Your task to perform on an android device: manage bookmarks in the chrome app Image 0: 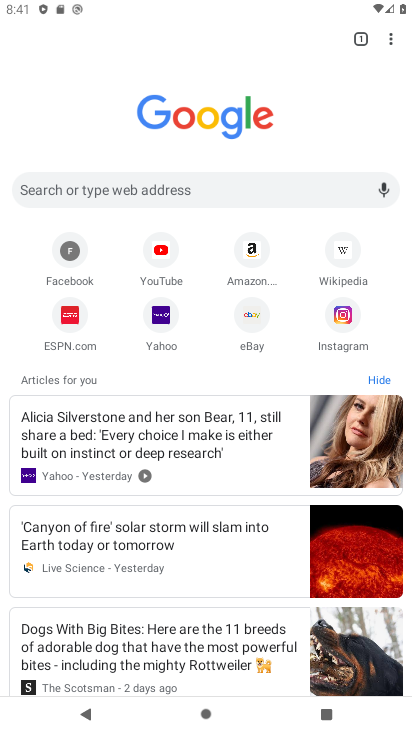
Step 0: click (390, 32)
Your task to perform on an android device: manage bookmarks in the chrome app Image 1: 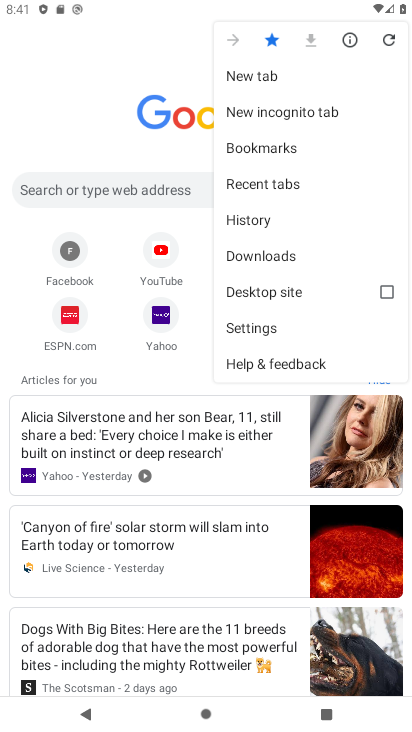
Step 1: click (289, 143)
Your task to perform on an android device: manage bookmarks in the chrome app Image 2: 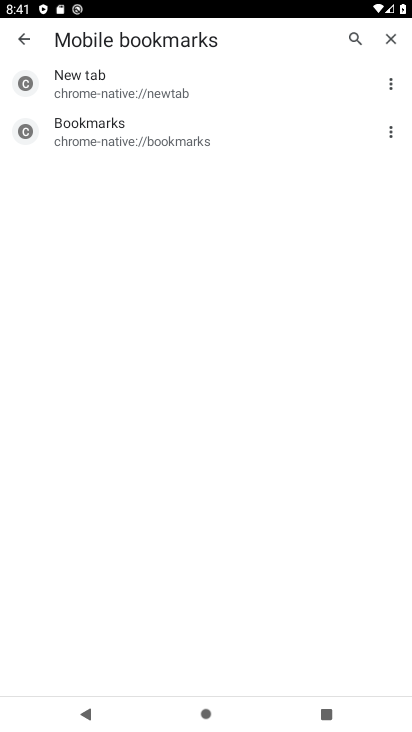
Step 2: click (249, 139)
Your task to perform on an android device: manage bookmarks in the chrome app Image 3: 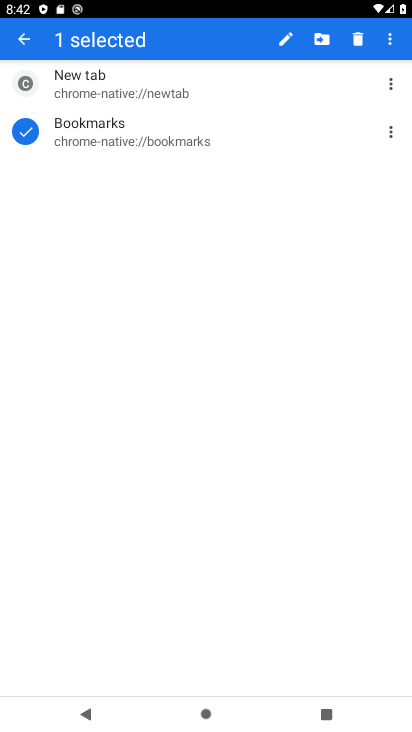
Step 3: click (320, 43)
Your task to perform on an android device: manage bookmarks in the chrome app Image 4: 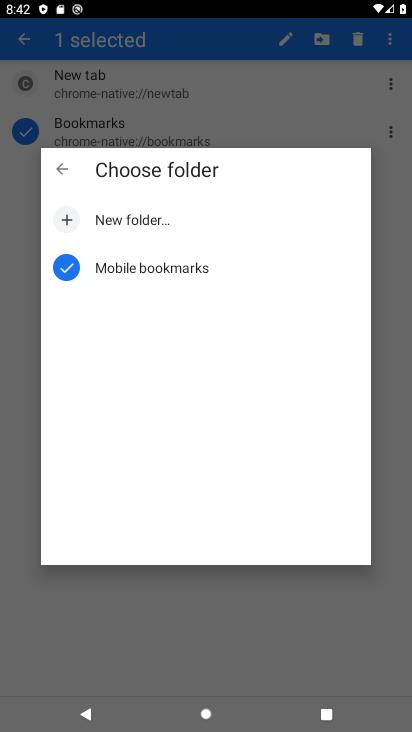
Step 4: click (250, 213)
Your task to perform on an android device: manage bookmarks in the chrome app Image 5: 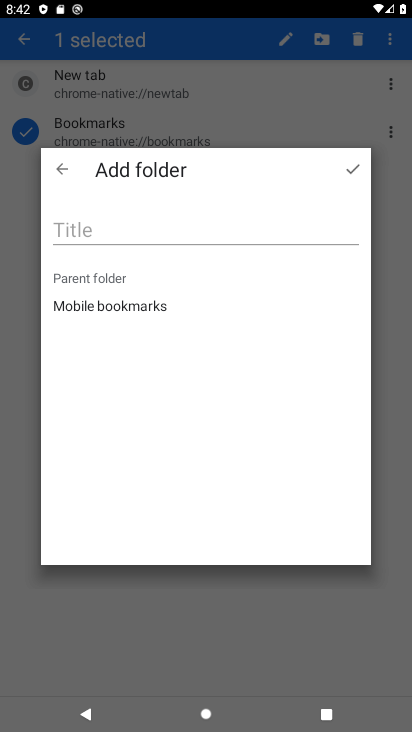
Step 5: click (241, 237)
Your task to perform on an android device: manage bookmarks in the chrome app Image 6: 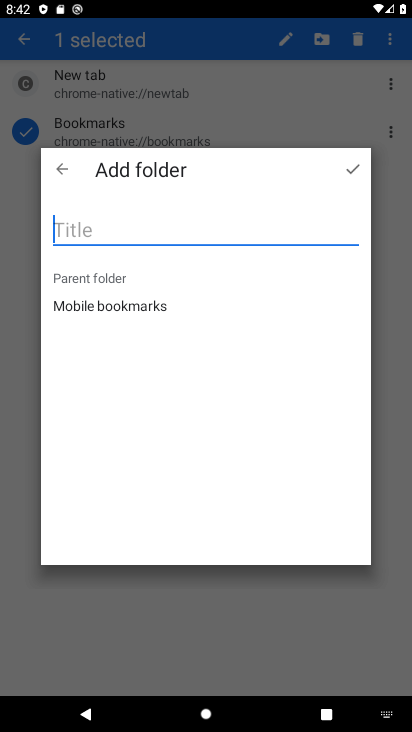
Step 6: type "jbjkbk"
Your task to perform on an android device: manage bookmarks in the chrome app Image 7: 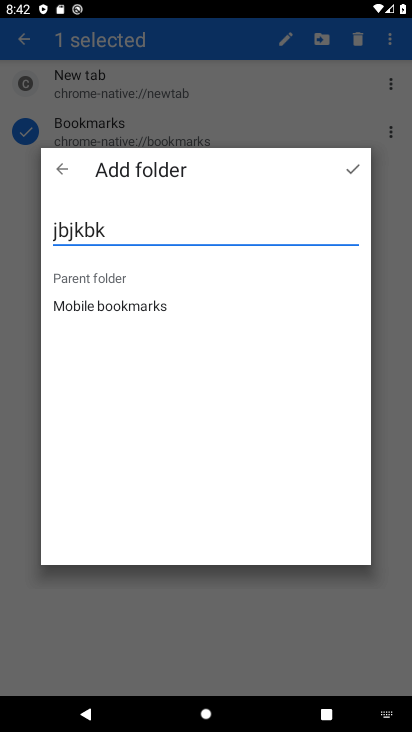
Step 7: click (345, 175)
Your task to perform on an android device: manage bookmarks in the chrome app Image 8: 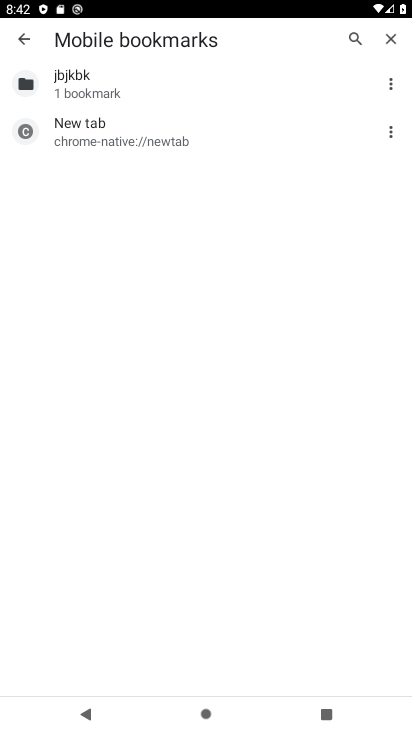
Step 8: task complete